Your task to perform on an android device: turn off priority inbox in the gmail app Image 0: 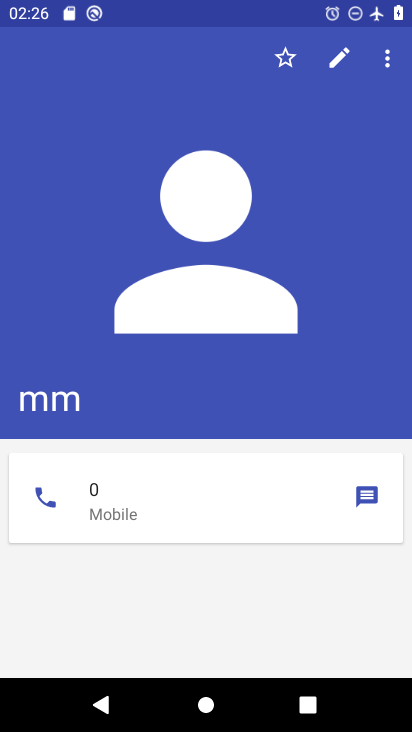
Step 0: press home button
Your task to perform on an android device: turn off priority inbox in the gmail app Image 1: 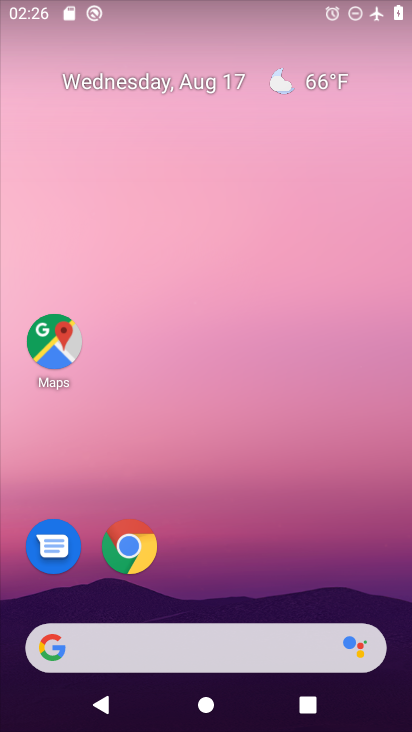
Step 1: drag from (236, 561) to (219, 14)
Your task to perform on an android device: turn off priority inbox in the gmail app Image 2: 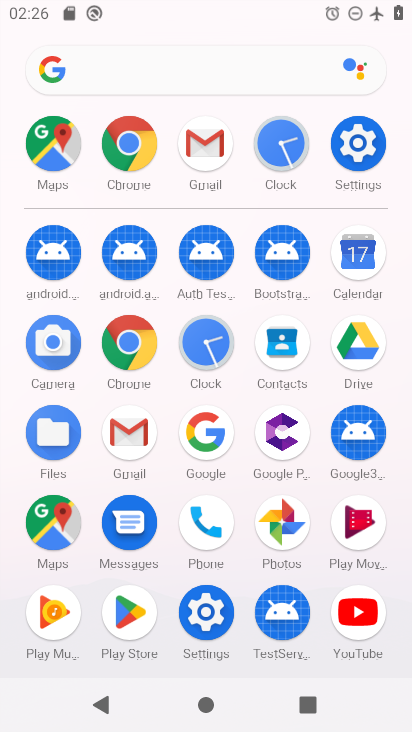
Step 2: click (202, 141)
Your task to perform on an android device: turn off priority inbox in the gmail app Image 3: 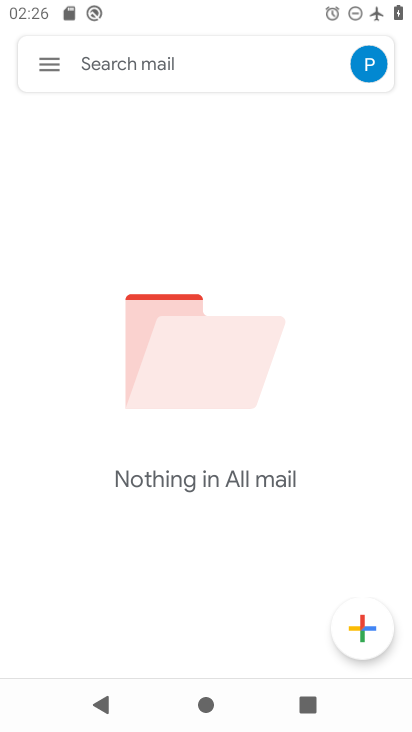
Step 3: click (48, 58)
Your task to perform on an android device: turn off priority inbox in the gmail app Image 4: 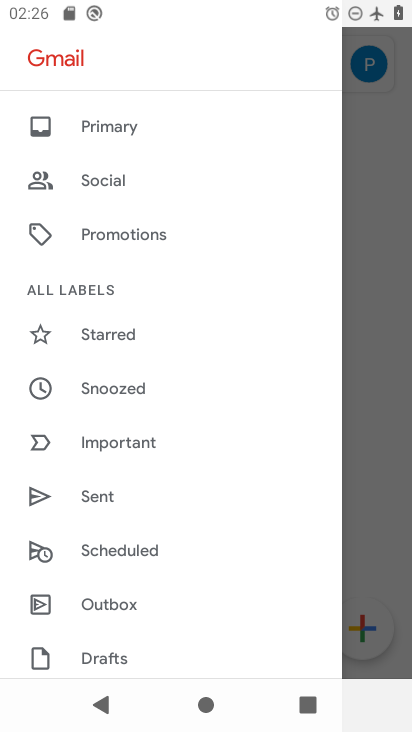
Step 4: drag from (201, 628) to (253, 184)
Your task to perform on an android device: turn off priority inbox in the gmail app Image 5: 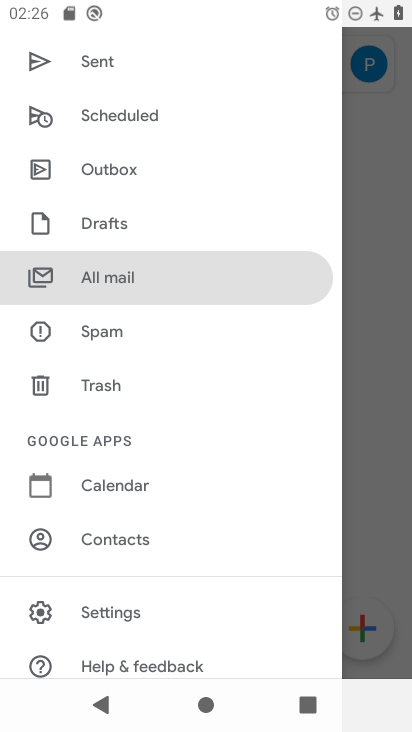
Step 5: drag from (207, 578) to (177, 209)
Your task to perform on an android device: turn off priority inbox in the gmail app Image 6: 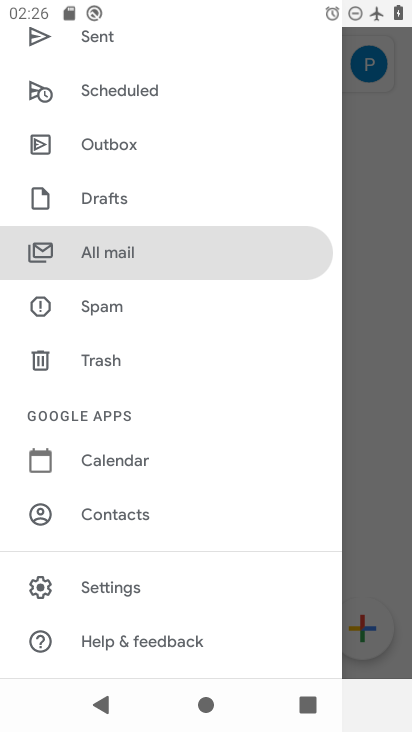
Step 6: click (110, 588)
Your task to perform on an android device: turn off priority inbox in the gmail app Image 7: 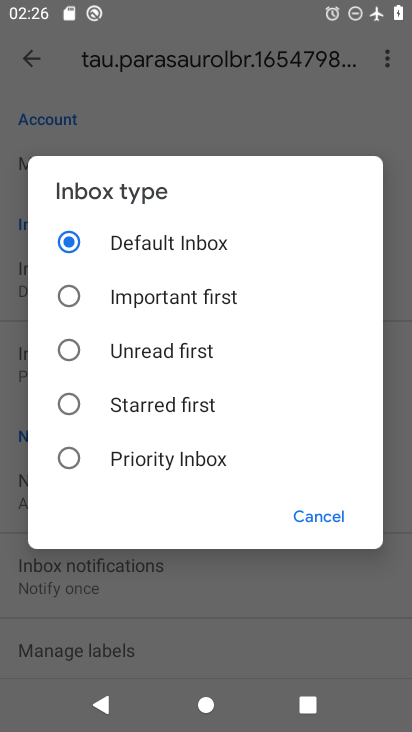
Step 7: task complete